Your task to perform on an android device: set the stopwatch Image 0: 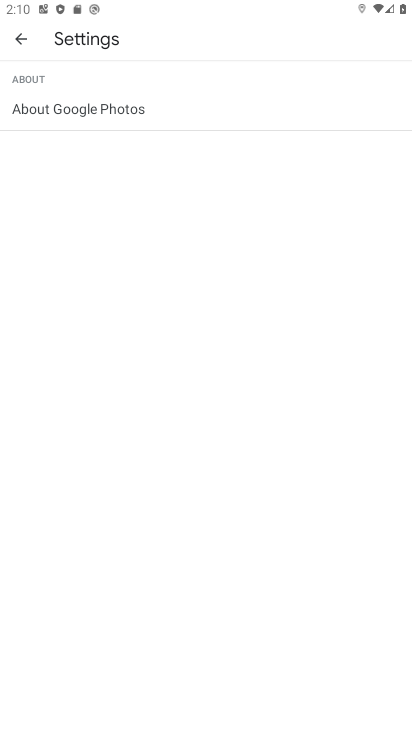
Step 0: press home button
Your task to perform on an android device: set the stopwatch Image 1: 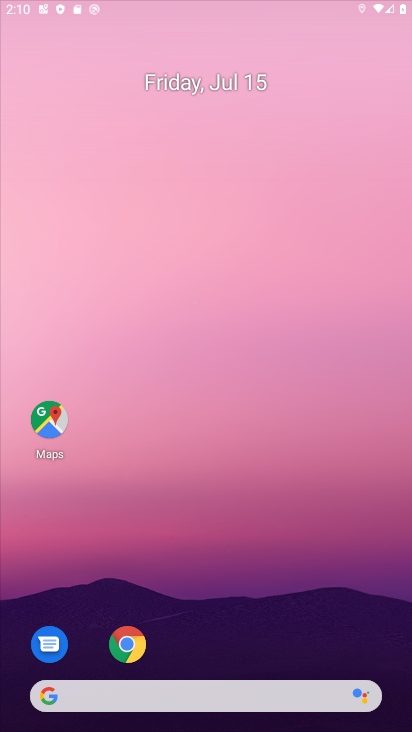
Step 1: drag from (397, 578) to (308, 41)
Your task to perform on an android device: set the stopwatch Image 2: 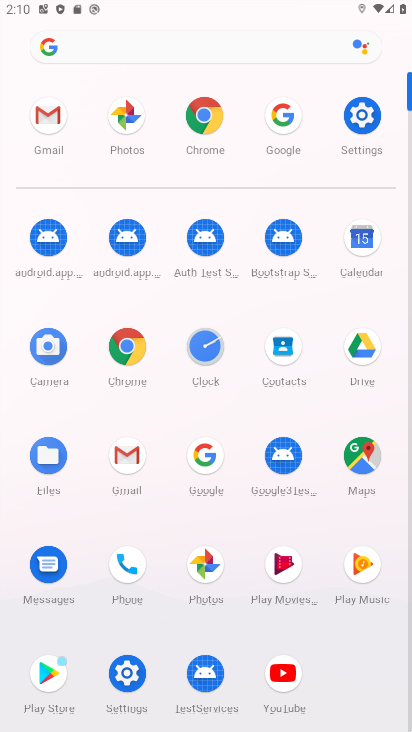
Step 2: click (204, 350)
Your task to perform on an android device: set the stopwatch Image 3: 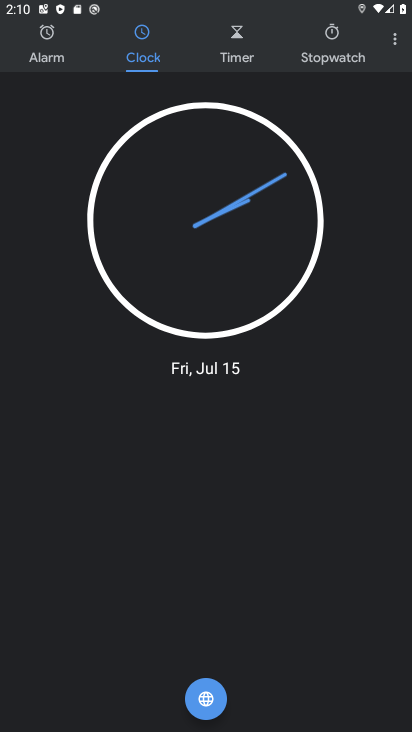
Step 3: click (334, 46)
Your task to perform on an android device: set the stopwatch Image 4: 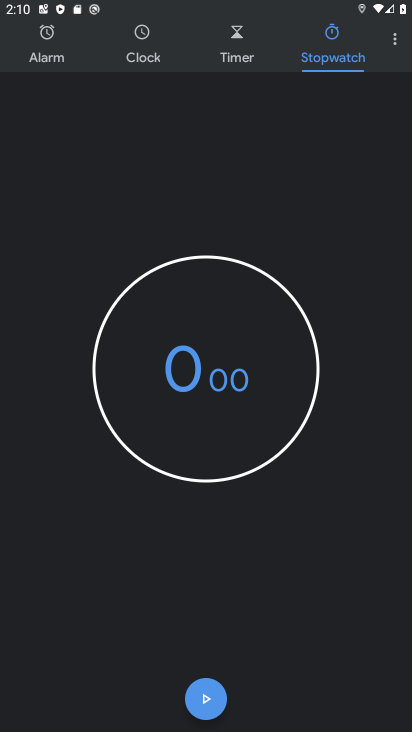
Step 4: click (204, 686)
Your task to perform on an android device: set the stopwatch Image 5: 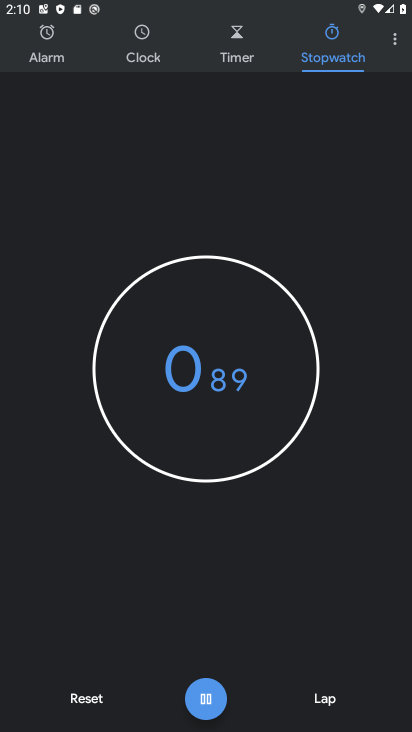
Step 5: click (204, 686)
Your task to perform on an android device: set the stopwatch Image 6: 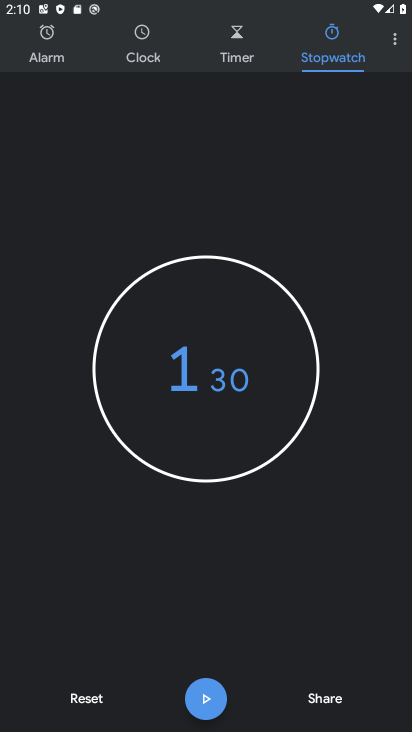
Step 6: task complete